Your task to perform on an android device: Open CNN.com Image 0: 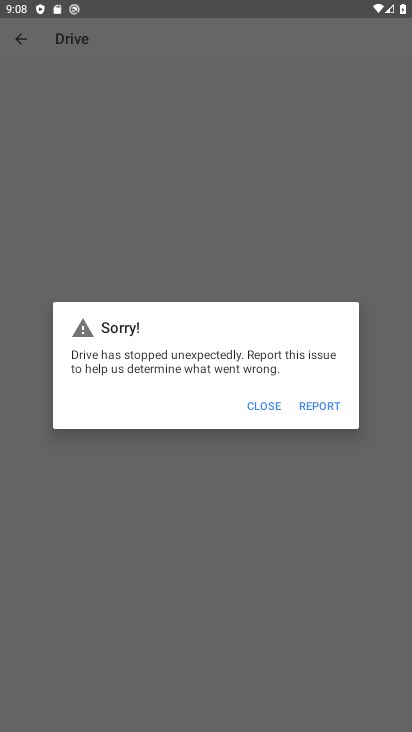
Step 0: press home button
Your task to perform on an android device: Open CNN.com Image 1: 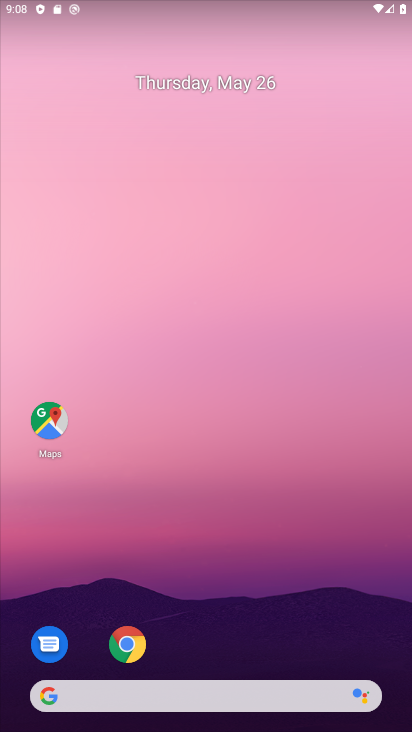
Step 1: click (122, 646)
Your task to perform on an android device: Open CNN.com Image 2: 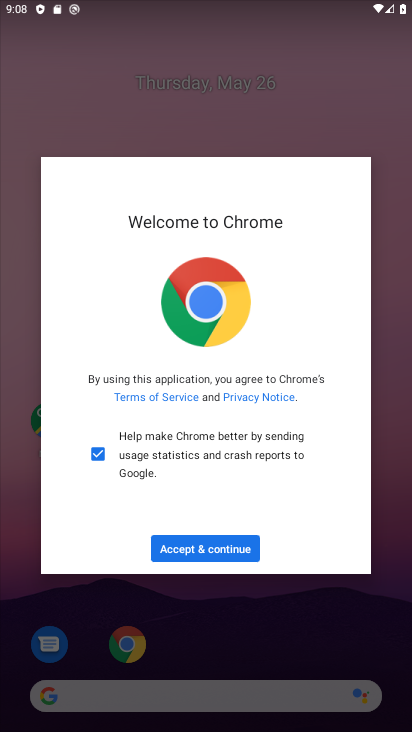
Step 2: click (168, 547)
Your task to perform on an android device: Open CNN.com Image 3: 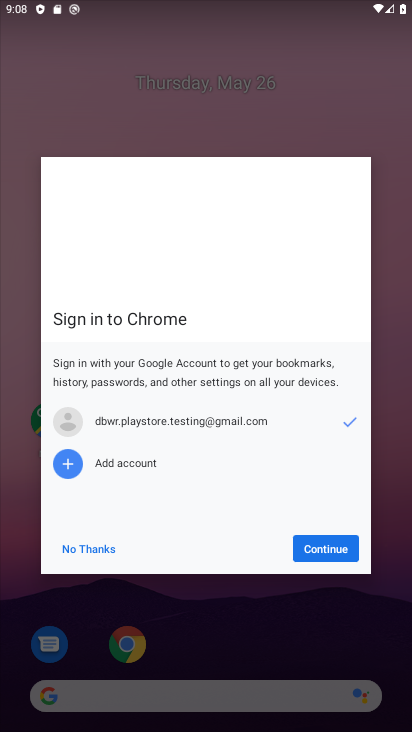
Step 3: click (312, 551)
Your task to perform on an android device: Open CNN.com Image 4: 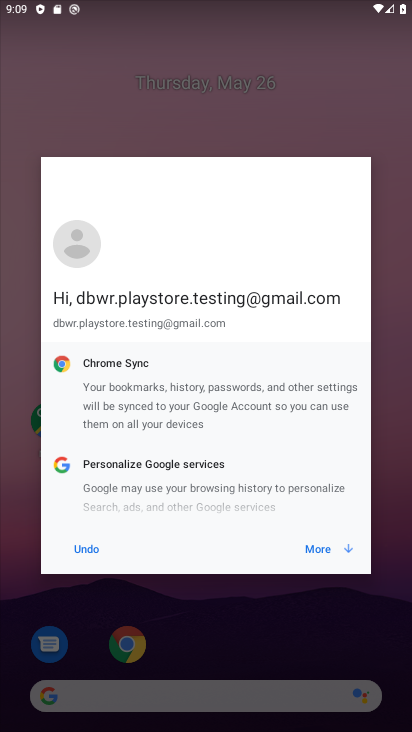
Step 4: click (323, 542)
Your task to perform on an android device: Open CNN.com Image 5: 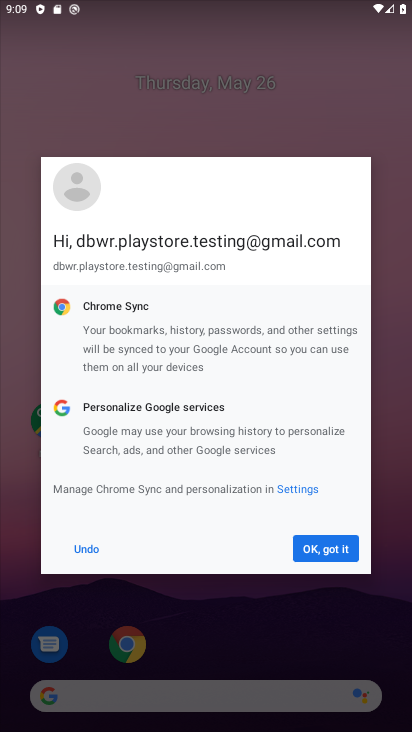
Step 5: click (304, 548)
Your task to perform on an android device: Open CNN.com Image 6: 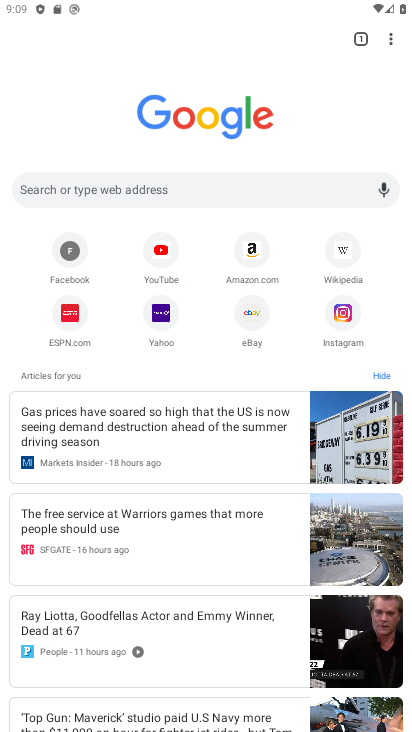
Step 6: click (144, 182)
Your task to perform on an android device: Open CNN.com Image 7: 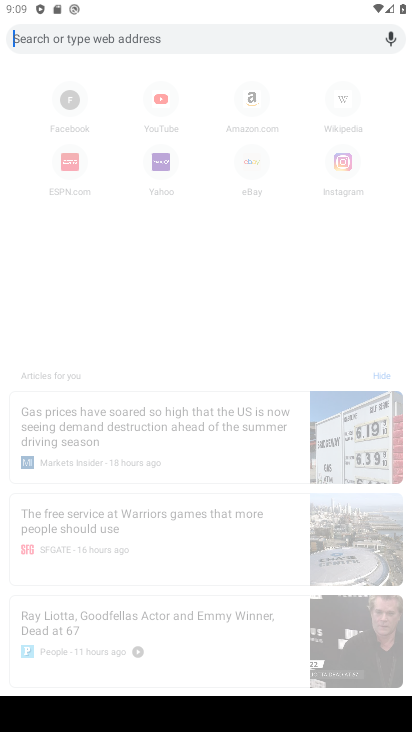
Step 7: type "CNN.com"
Your task to perform on an android device: Open CNN.com Image 8: 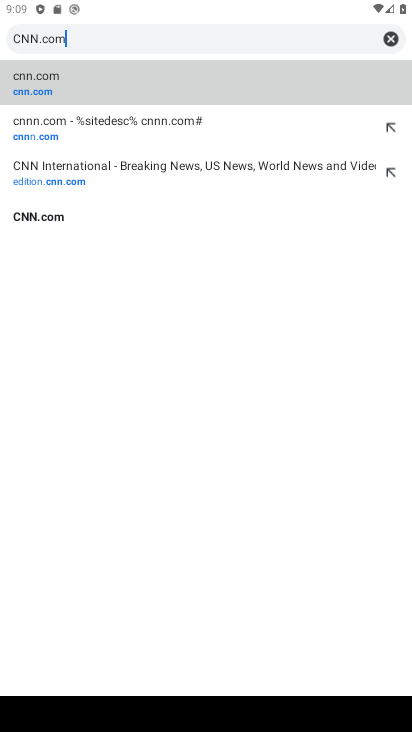
Step 8: click (69, 79)
Your task to perform on an android device: Open CNN.com Image 9: 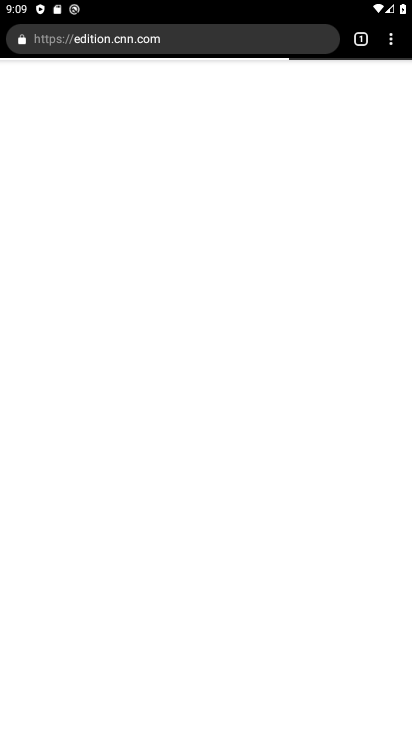
Step 9: task complete